Your task to perform on an android device: Show me popular videos on Youtube Image 0: 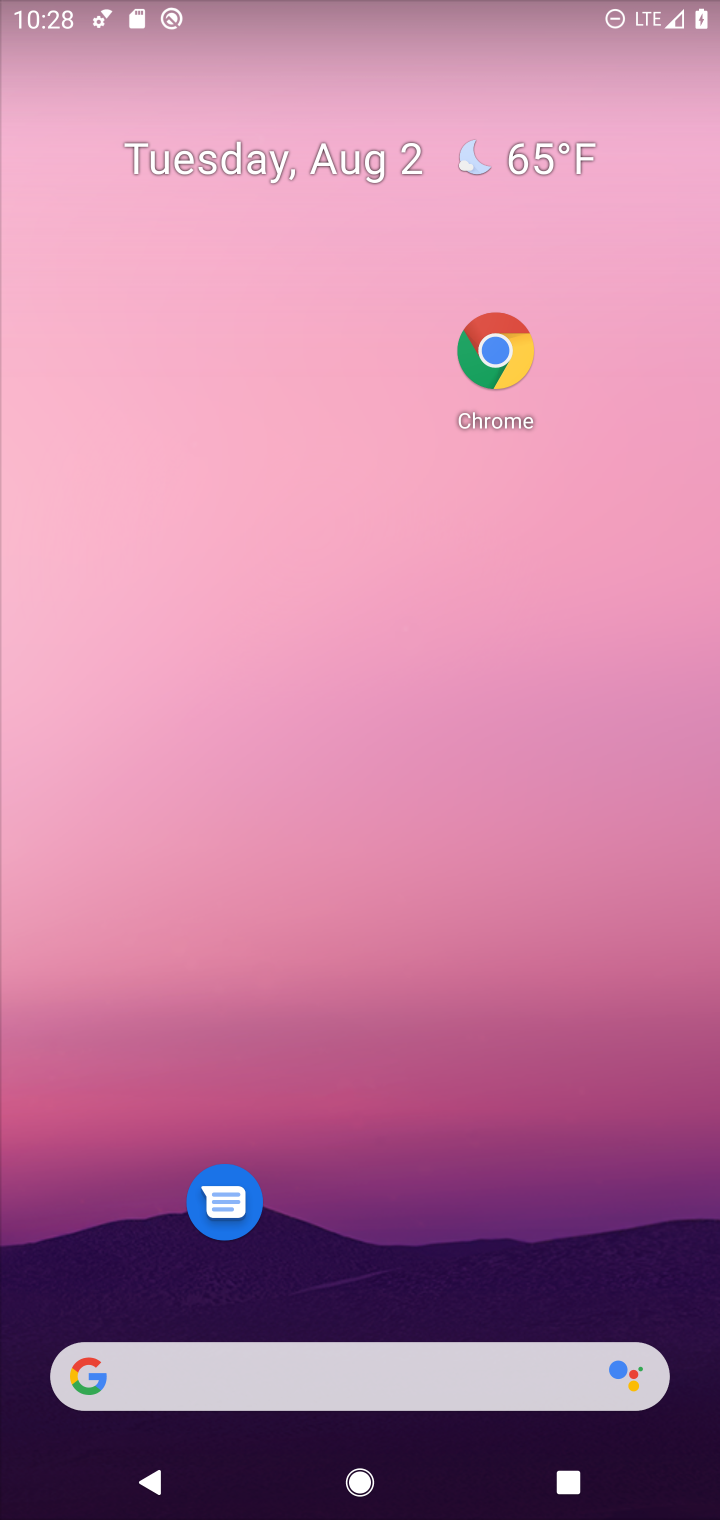
Step 0: drag from (398, 1209) to (462, 38)
Your task to perform on an android device: Show me popular videos on Youtube Image 1: 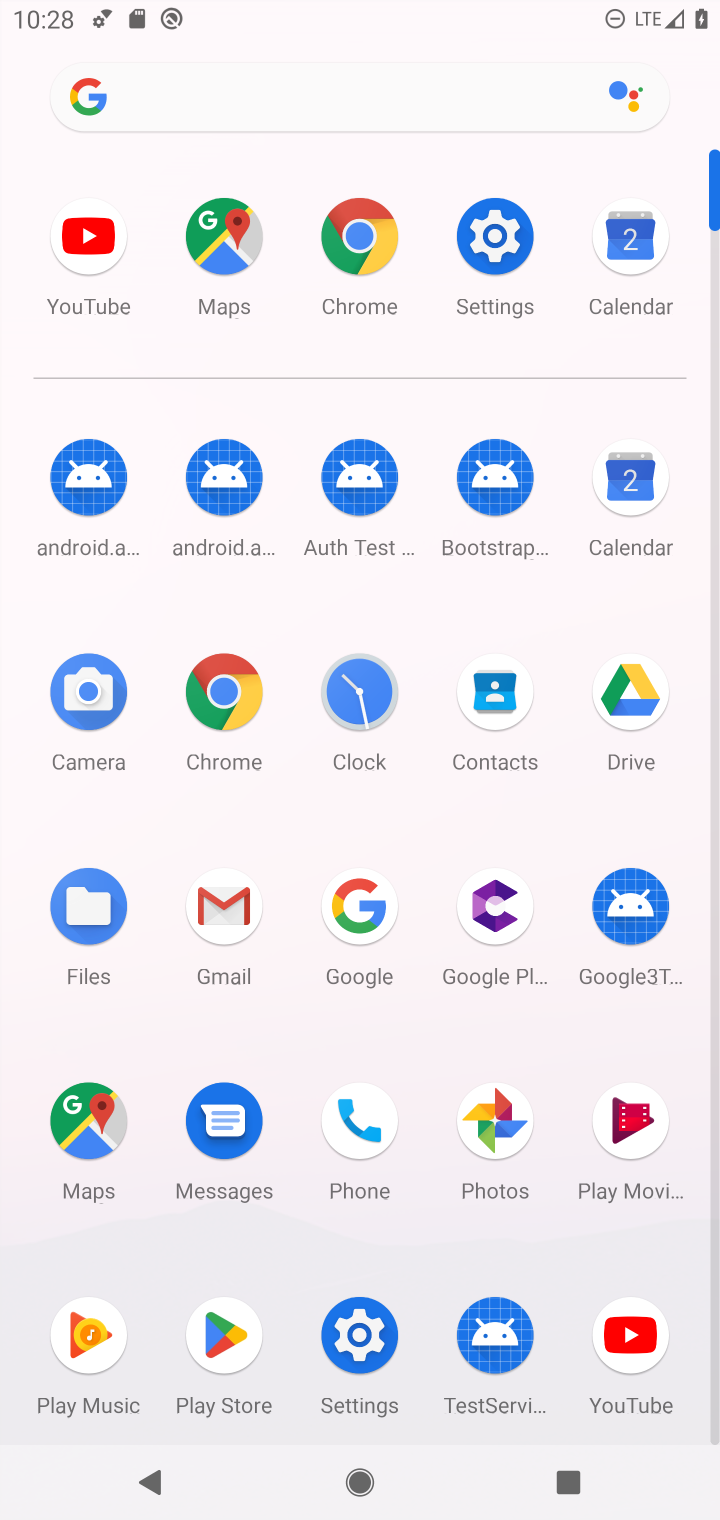
Step 1: click (636, 1350)
Your task to perform on an android device: Show me popular videos on Youtube Image 2: 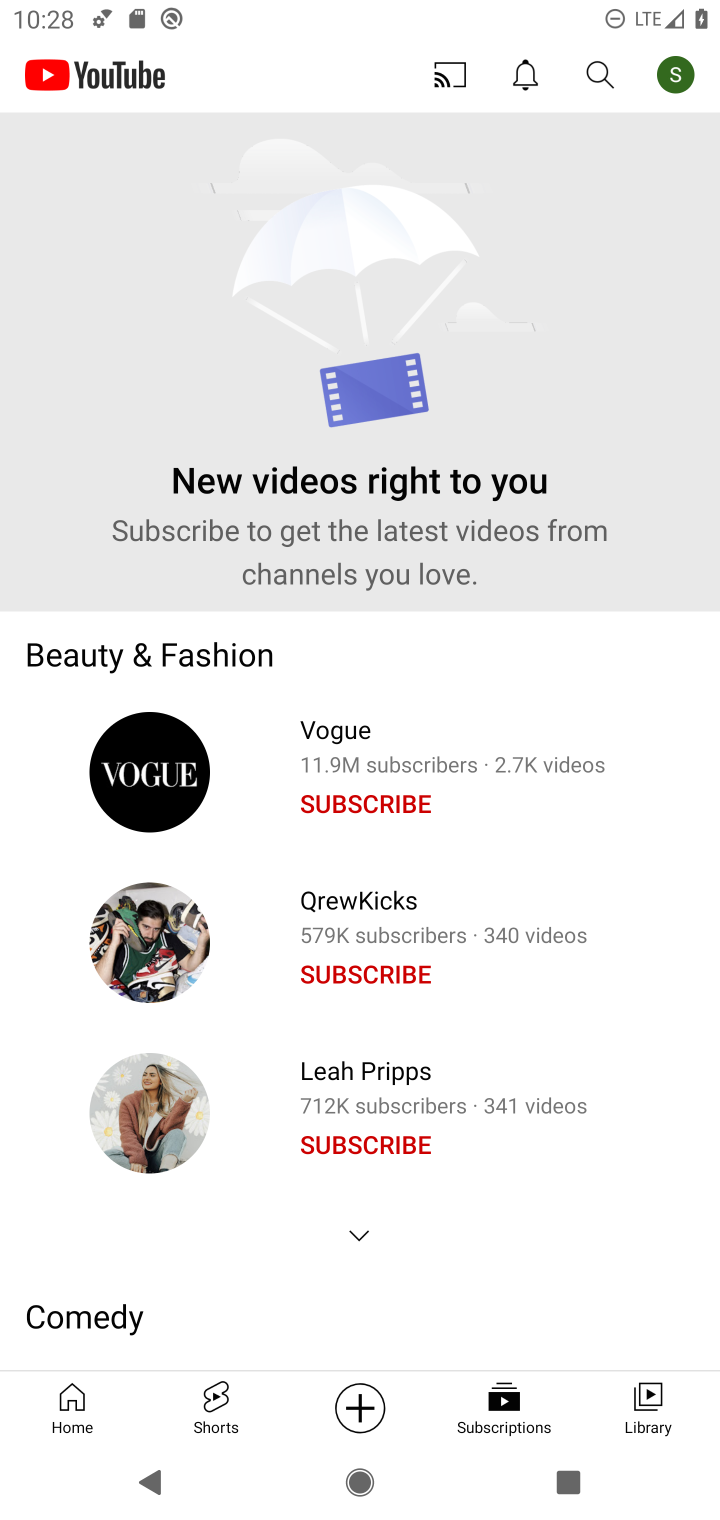
Step 2: click (59, 1417)
Your task to perform on an android device: Show me popular videos on Youtube Image 3: 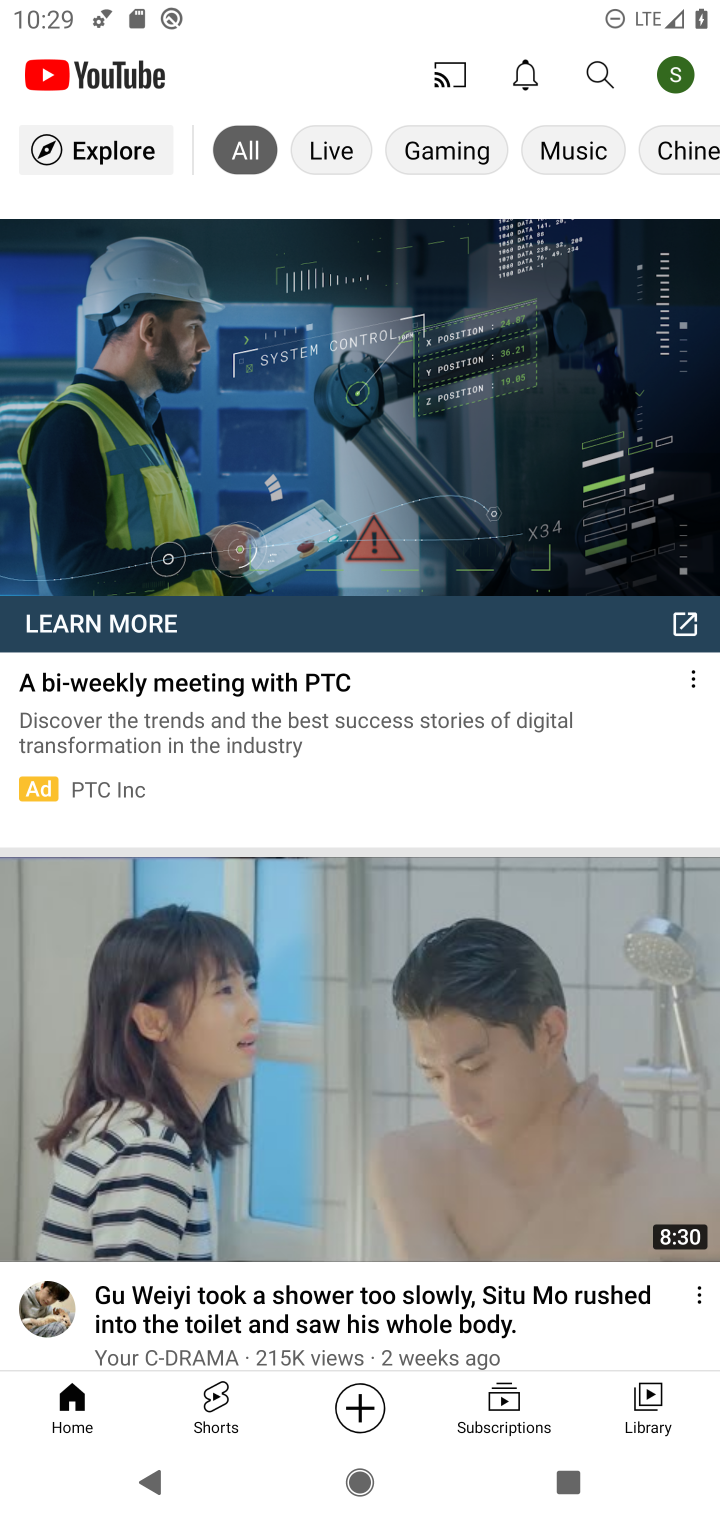
Step 3: task complete